Your task to perform on an android device: Go to notification settings Image 0: 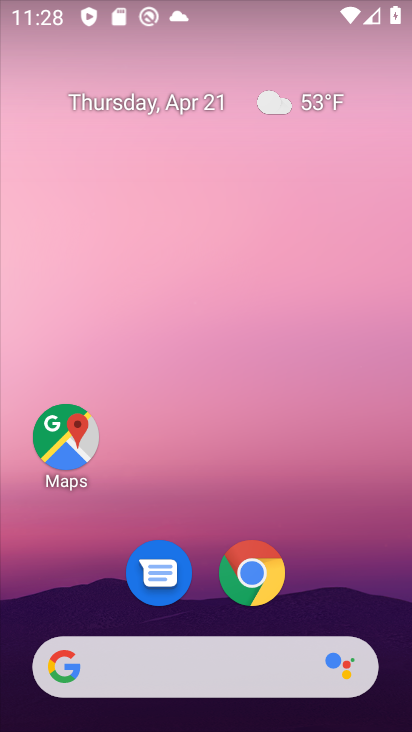
Step 0: drag from (180, 663) to (315, 102)
Your task to perform on an android device: Go to notification settings Image 1: 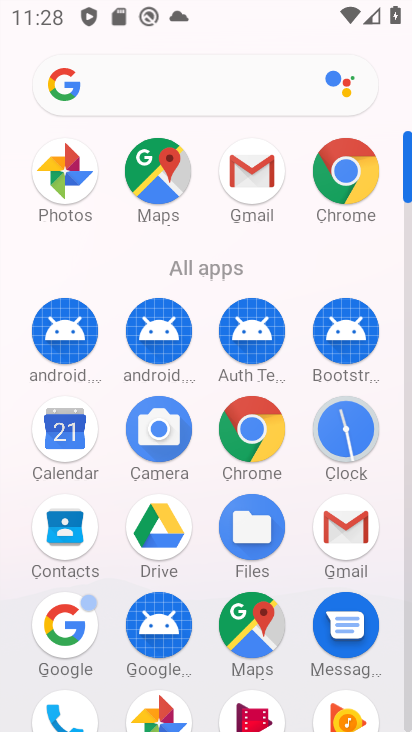
Step 1: drag from (221, 579) to (367, 204)
Your task to perform on an android device: Go to notification settings Image 2: 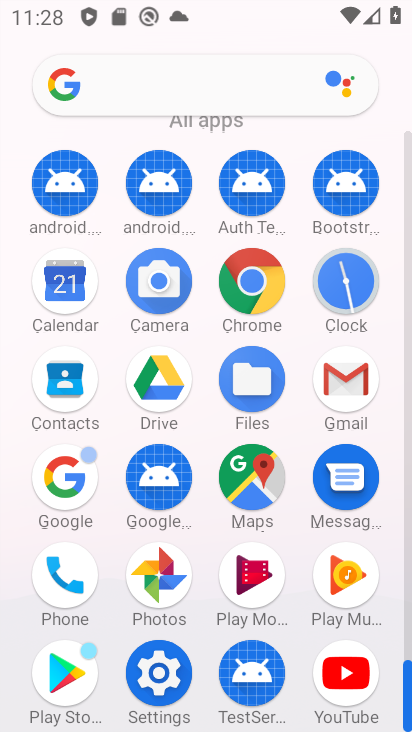
Step 2: click (164, 675)
Your task to perform on an android device: Go to notification settings Image 3: 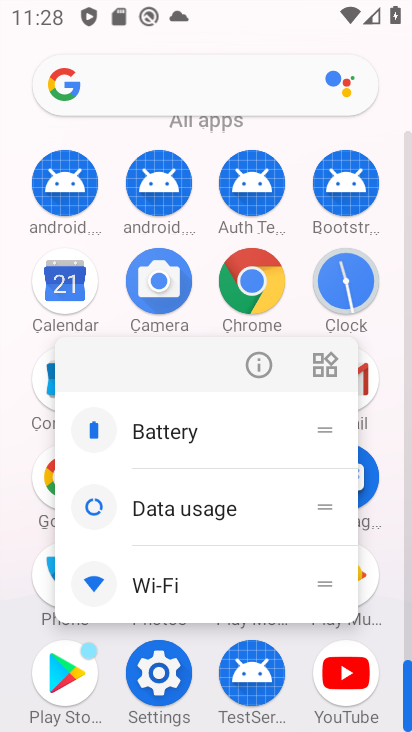
Step 3: click (151, 673)
Your task to perform on an android device: Go to notification settings Image 4: 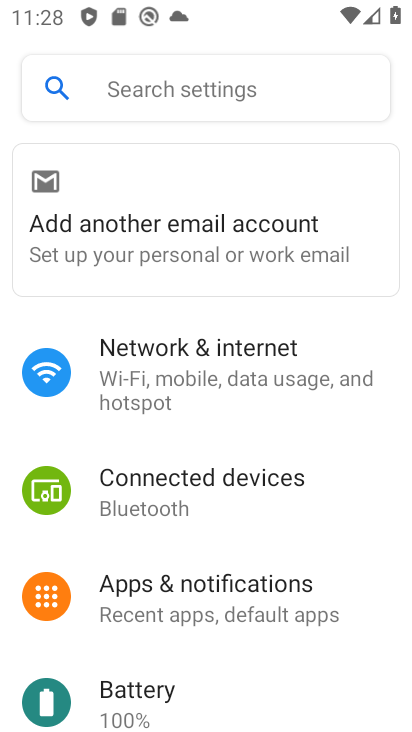
Step 4: click (205, 584)
Your task to perform on an android device: Go to notification settings Image 5: 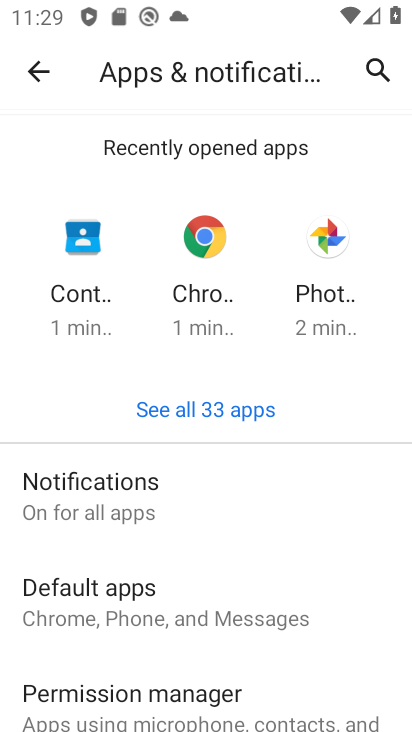
Step 5: click (142, 493)
Your task to perform on an android device: Go to notification settings Image 6: 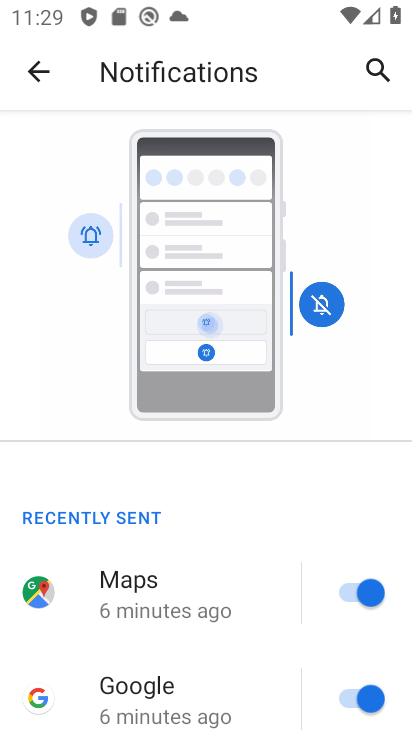
Step 6: task complete